Your task to perform on an android device: find which apps use the phone's location Image 0: 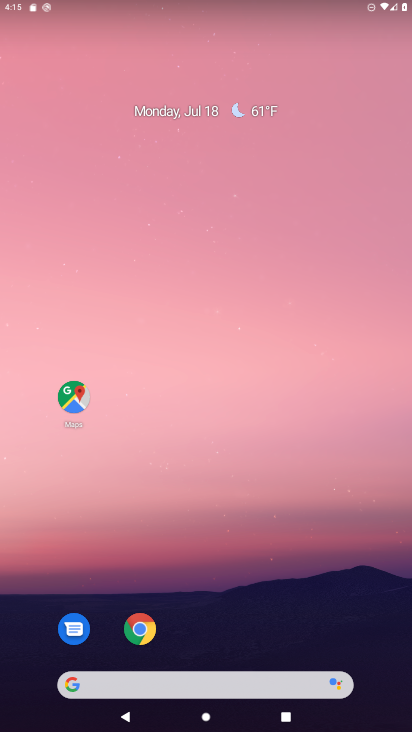
Step 0: drag from (198, 670) to (239, 320)
Your task to perform on an android device: find which apps use the phone's location Image 1: 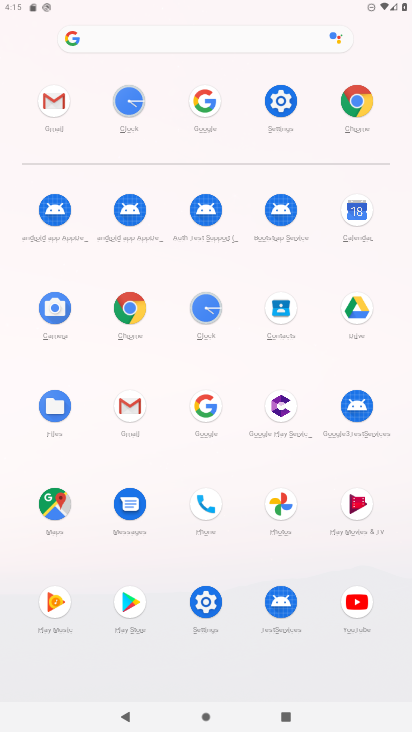
Step 1: click (284, 108)
Your task to perform on an android device: find which apps use the phone's location Image 2: 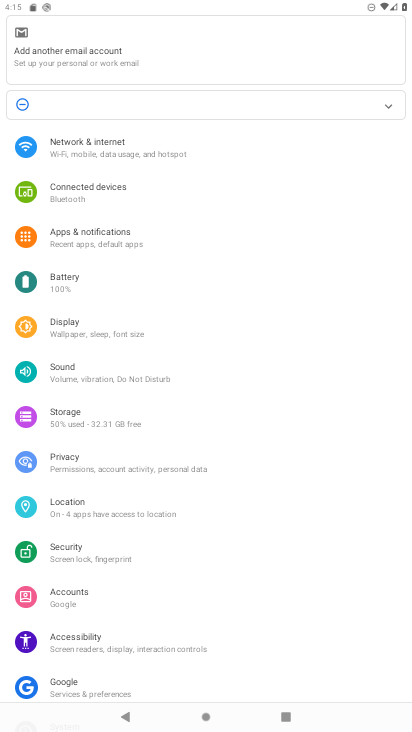
Step 2: click (68, 512)
Your task to perform on an android device: find which apps use the phone's location Image 3: 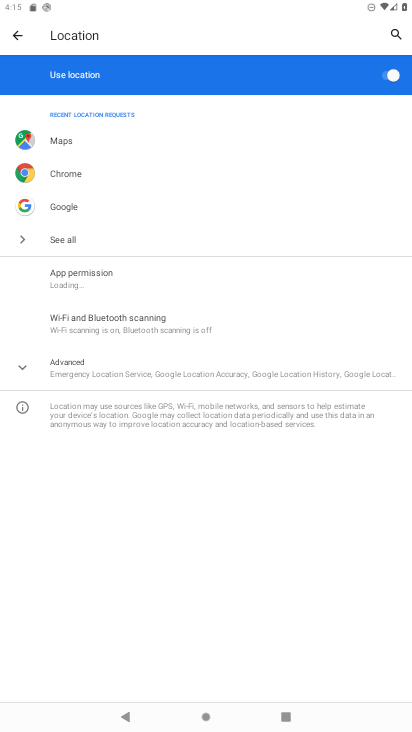
Step 3: click (58, 278)
Your task to perform on an android device: find which apps use the phone's location Image 4: 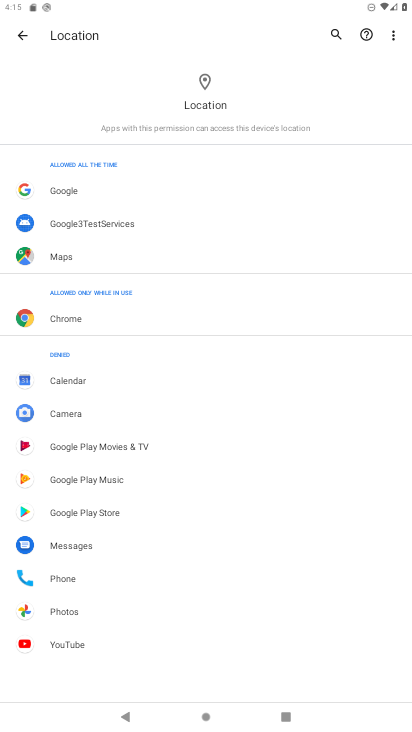
Step 4: task complete